Your task to perform on an android device: uninstall "Reddit" Image 0: 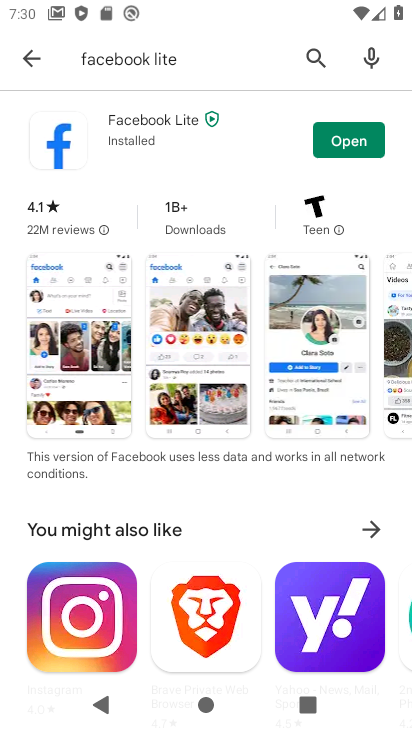
Step 0: press home button
Your task to perform on an android device: uninstall "Reddit" Image 1: 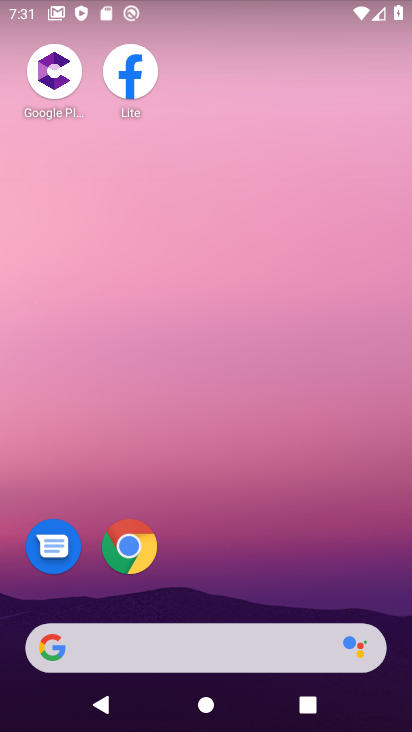
Step 1: drag from (247, 543) to (230, 51)
Your task to perform on an android device: uninstall "Reddit" Image 2: 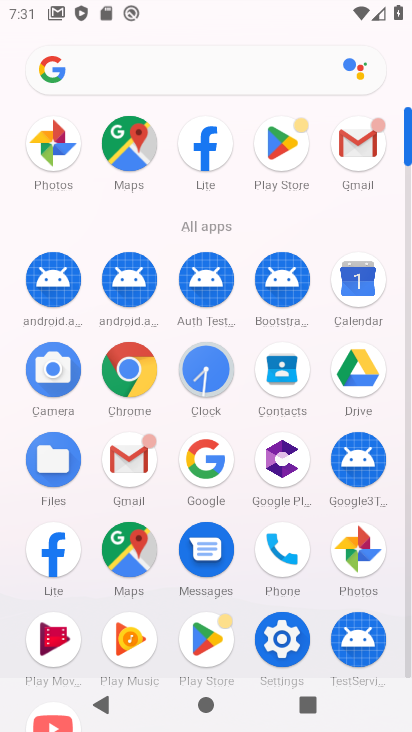
Step 2: click (284, 155)
Your task to perform on an android device: uninstall "Reddit" Image 3: 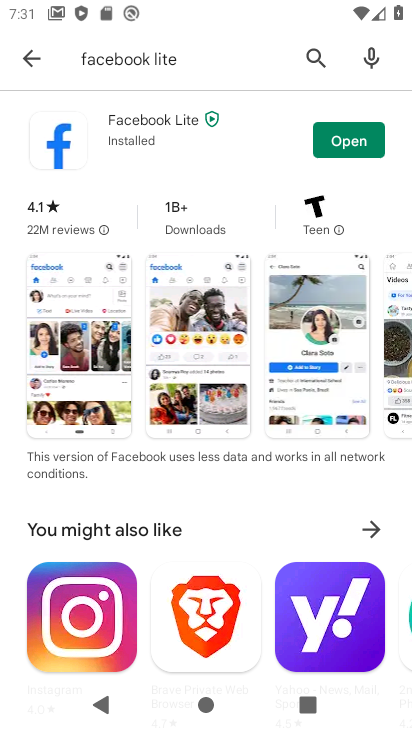
Step 3: click (237, 53)
Your task to perform on an android device: uninstall "Reddit" Image 4: 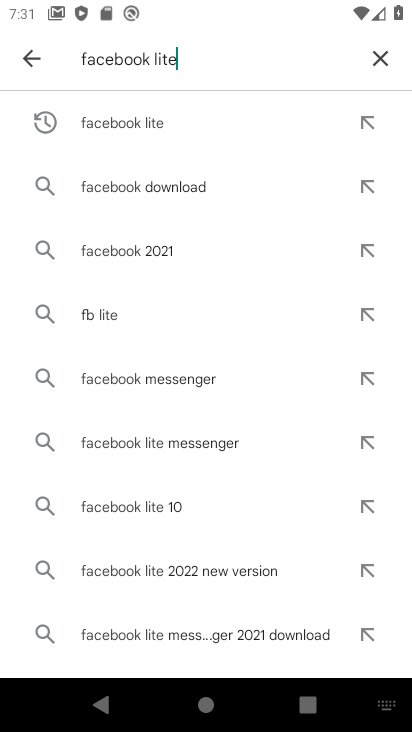
Step 4: click (378, 56)
Your task to perform on an android device: uninstall "Reddit" Image 5: 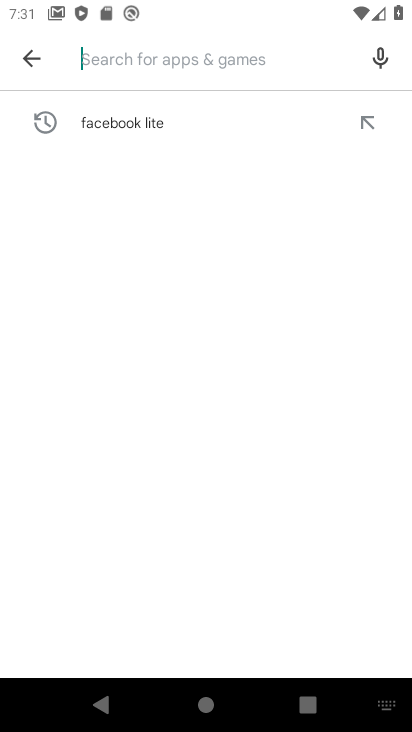
Step 5: type "reddit"
Your task to perform on an android device: uninstall "Reddit" Image 6: 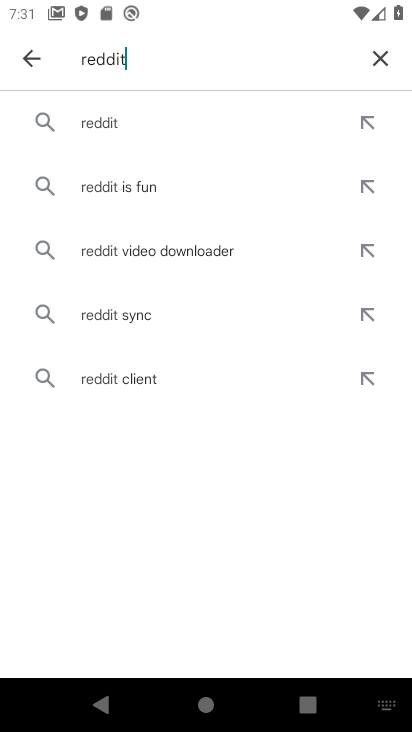
Step 6: click (109, 116)
Your task to perform on an android device: uninstall "Reddit" Image 7: 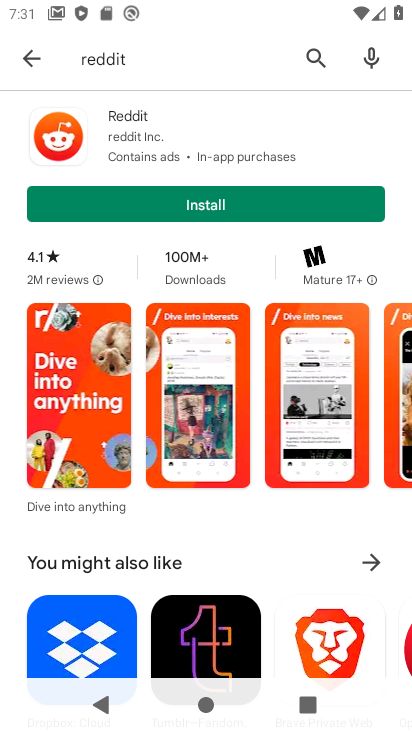
Step 7: task complete